Your task to perform on an android device: turn off picture-in-picture Image 0: 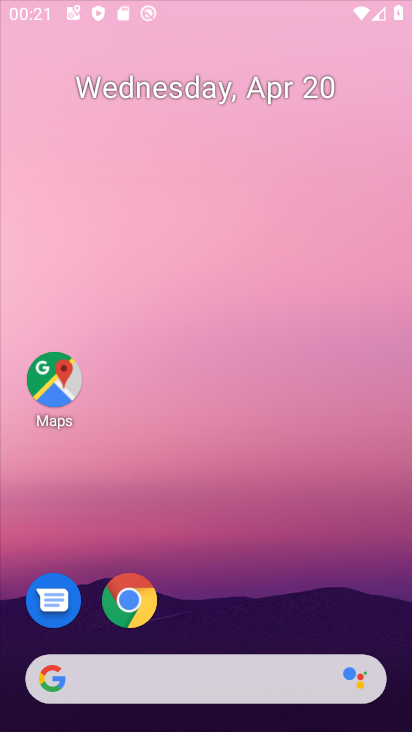
Step 0: click (222, 1)
Your task to perform on an android device: turn off picture-in-picture Image 1: 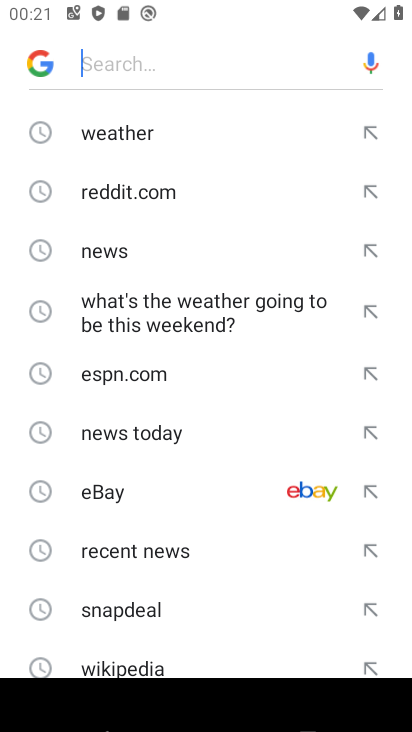
Step 1: press back button
Your task to perform on an android device: turn off picture-in-picture Image 2: 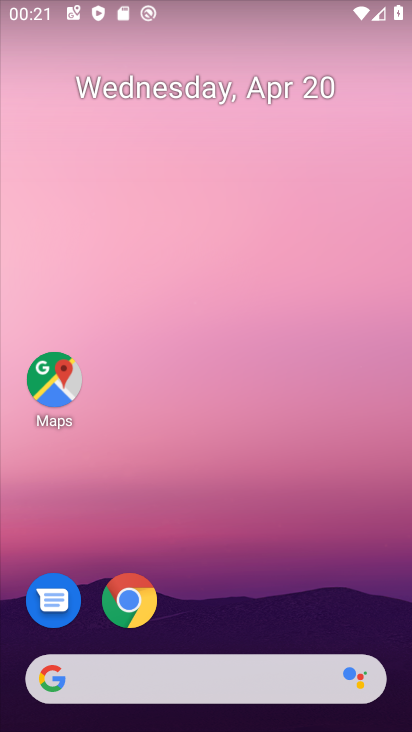
Step 2: drag from (260, 584) to (145, 8)
Your task to perform on an android device: turn off picture-in-picture Image 3: 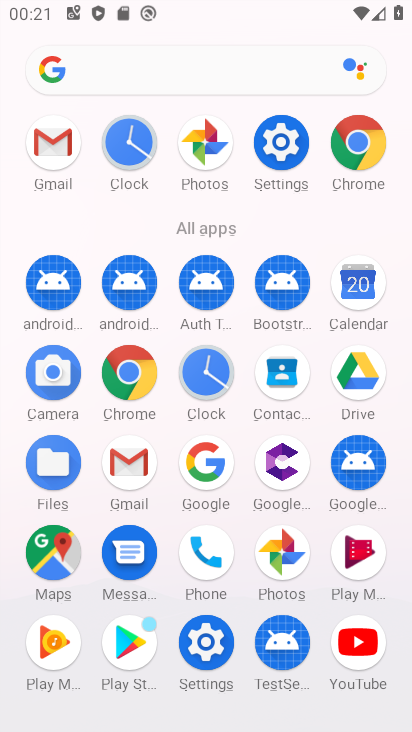
Step 3: click (204, 640)
Your task to perform on an android device: turn off picture-in-picture Image 4: 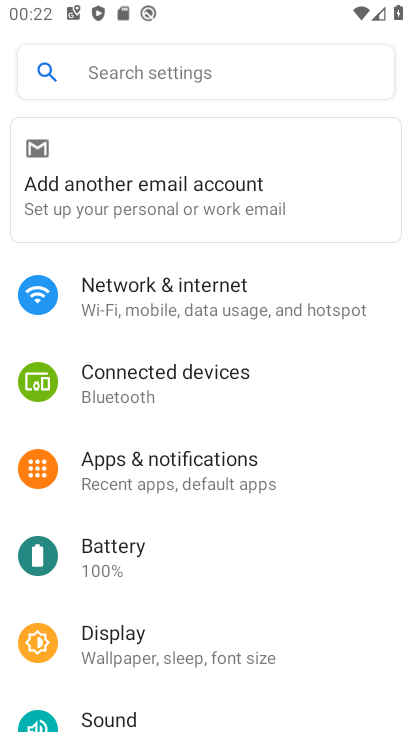
Step 4: drag from (294, 540) to (285, 203)
Your task to perform on an android device: turn off picture-in-picture Image 5: 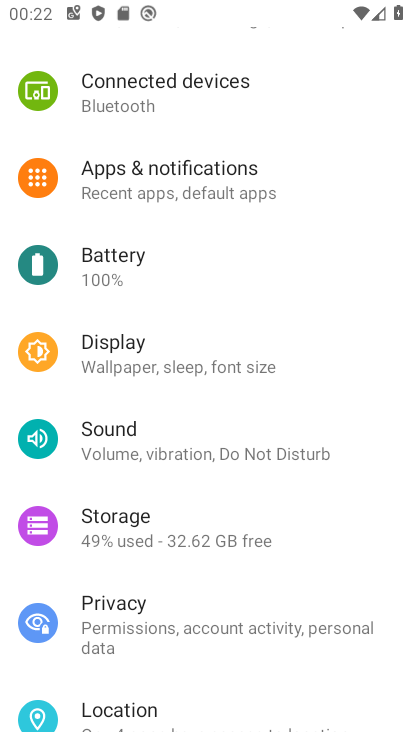
Step 5: drag from (334, 522) to (326, 108)
Your task to perform on an android device: turn off picture-in-picture Image 6: 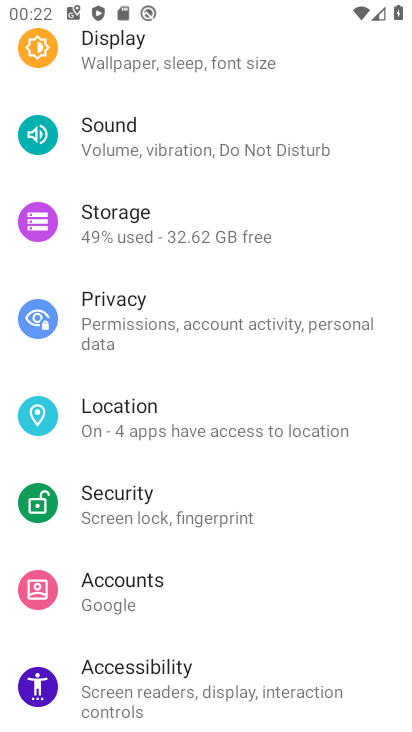
Step 6: drag from (349, 516) to (336, 84)
Your task to perform on an android device: turn off picture-in-picture Image 7: 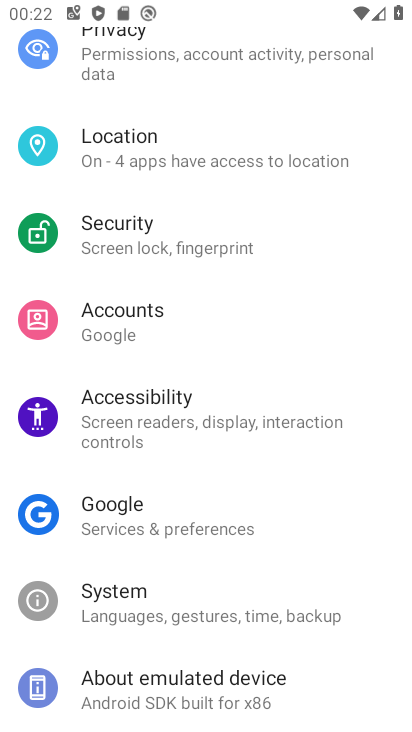
Step 7: drag from (340, 409) to (298, 100)
Your task to perform on an android device: turn off picture-in-picture Image 8: 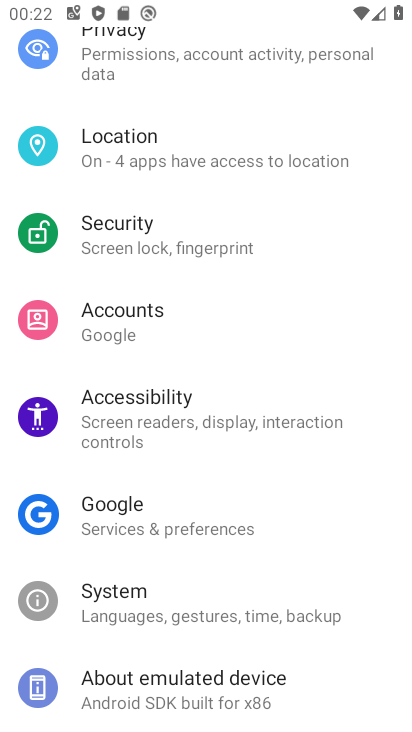
Step 8: drag from (260, 111) to (281, 573)
Your task to perform on an android device: turn off picture-in-picture Image 9: 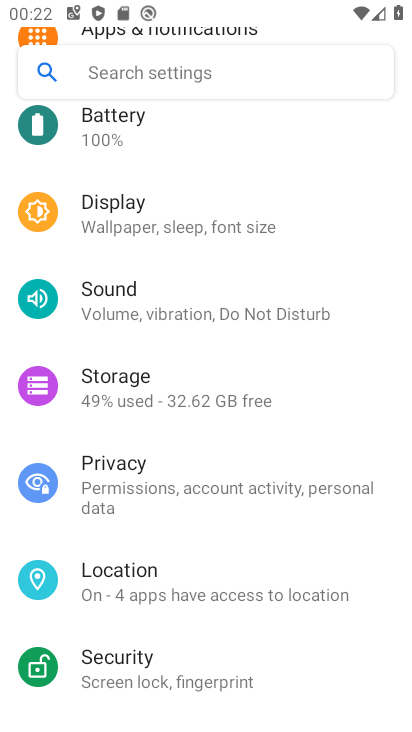
Step 9: drag from (258, 212) to (267, 549)
Your task to perform on an android device: turn off picture-in-picture Image 10: 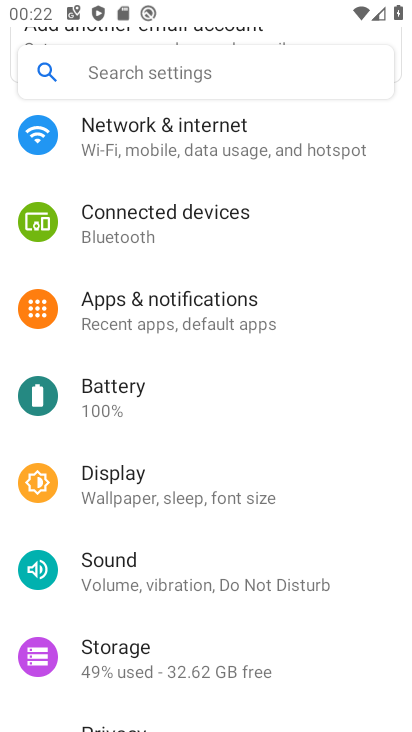
Step 10: click (194, 310)
Your task to perform on an android device: turn off picture-in-picture Image 11: 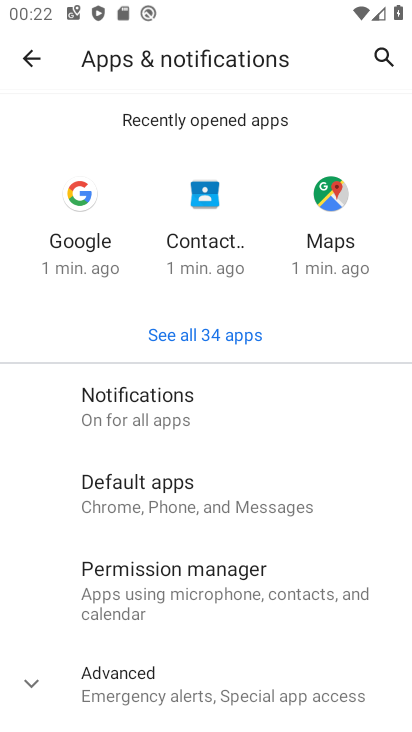
Step 11: click (216, 690)
Your task to perform on an android device: turn off picture-in-picture Image 12: 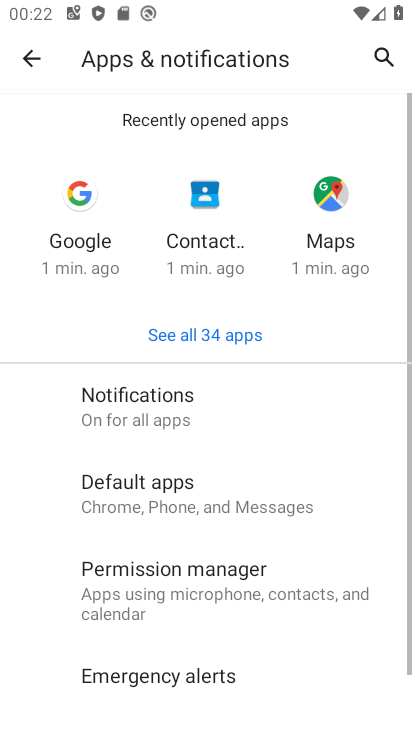
Step 12: drag from (250, 626) to (246, 200)
Your task to perform on an android device: turn off picture-in-picture Image 13: 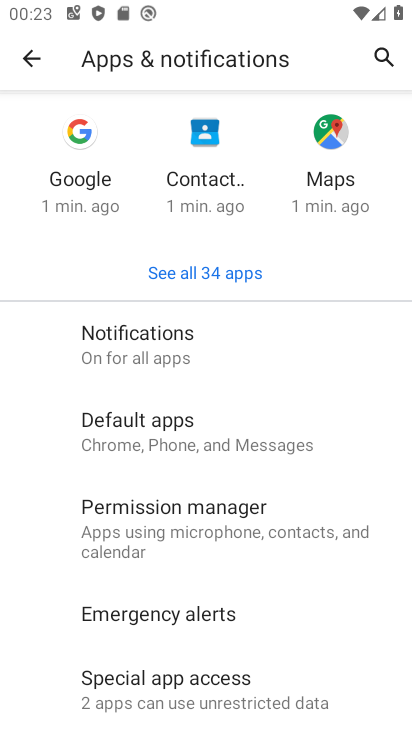
Step 13: drag from (239, 635) to (246, 315)
Your task to perform on an android device: turn off picture-in-picture Image 14: 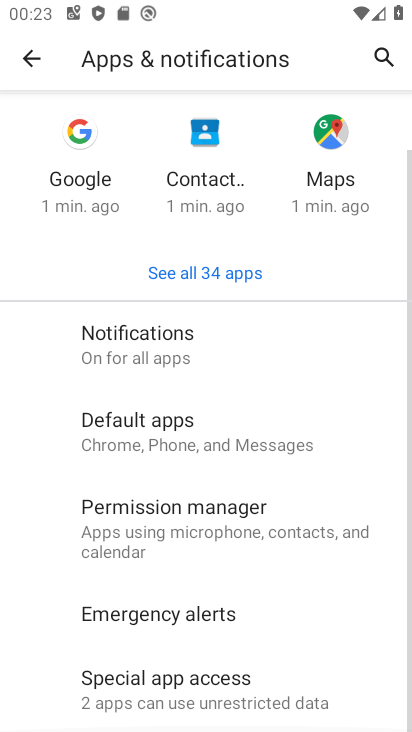
Step 14: click (222, 677)
Your task to perform on an android device: turn off picture-in-picture Image 15: 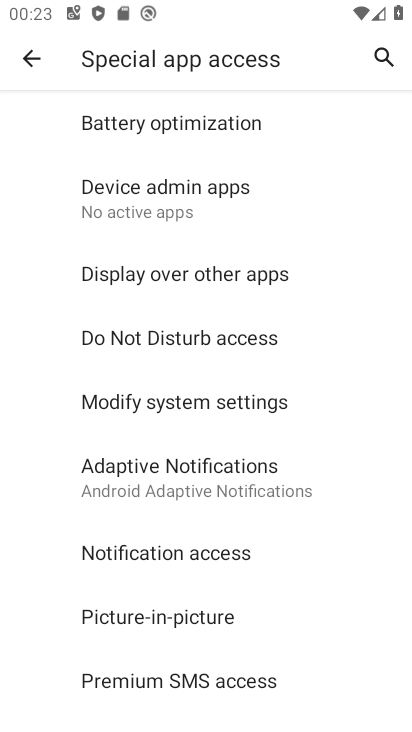
Step 15: click (238, 607)
Your task to perform on an android device: turn off picture-in-picture Image 16: 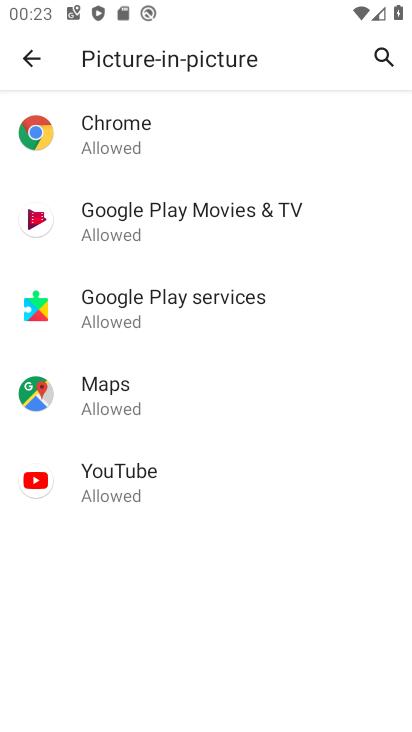
Step 16: click (165, 118)
Your task to perform on an android device: turn off picture-in-picture Image 17: 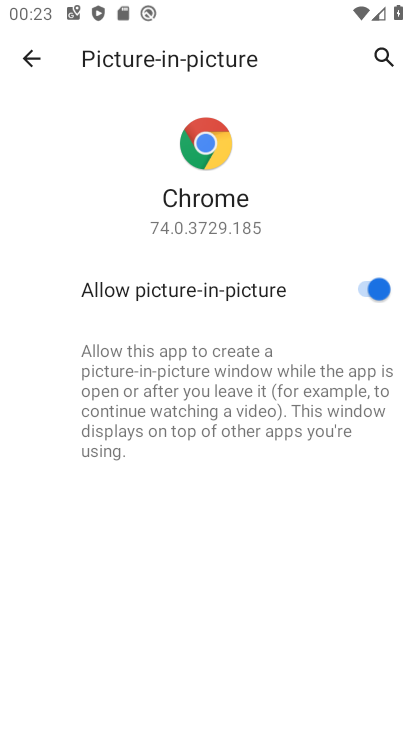
Step 17: click (361, 278)
Your task to perform on an android device: turn off picture-in-picture Image 18: 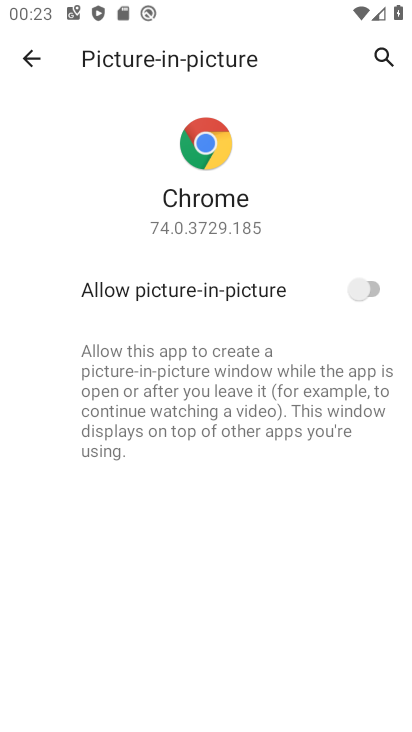
Step 18: click (22, 48)
Your task to perform on an android device: turn off picture-in-picture Image 19: 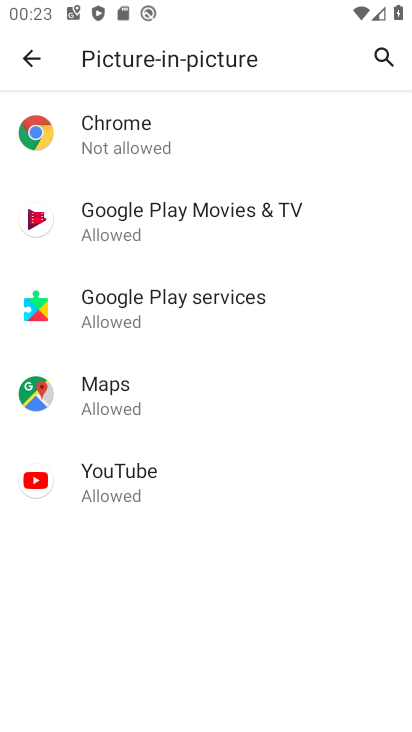
Step 19: click (180, 232)
Your task to perform on an android device: turn off picture-in-picture Image 20: 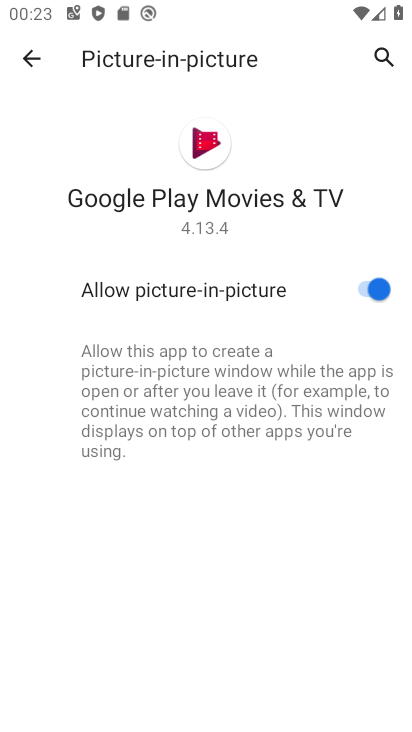
Step 20: click (371, 288)
Your task to perform on an android device: turn off picture-in-picture Image 21: 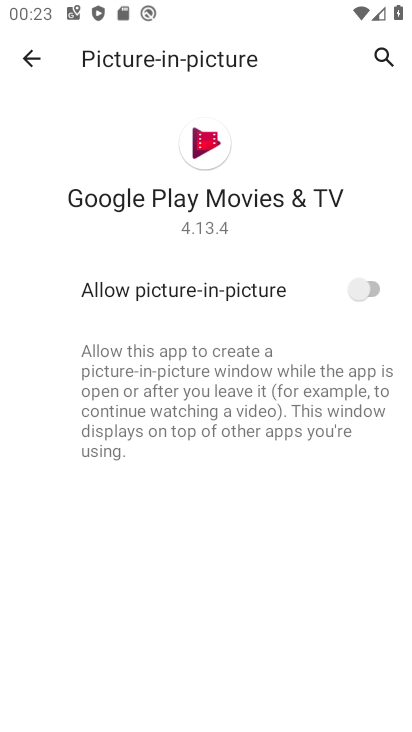
Step 21: click (36, 49)
Your task to perform on an android device: turn off picture-in-picture Image 22: 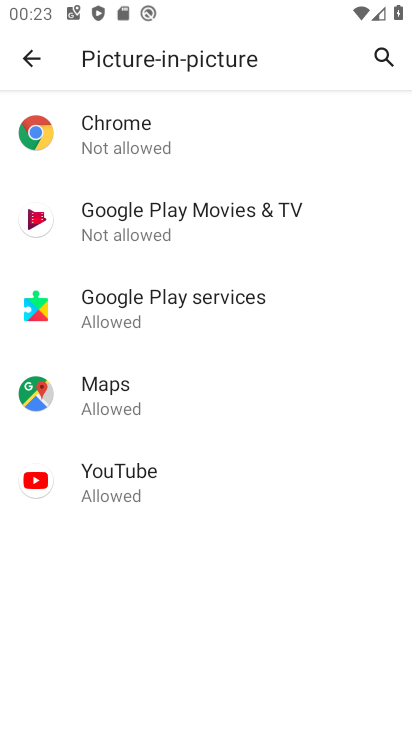
Step 22: click (177, 290)
Your task to perform on an android device: turn off picture-in-picture Image 23: 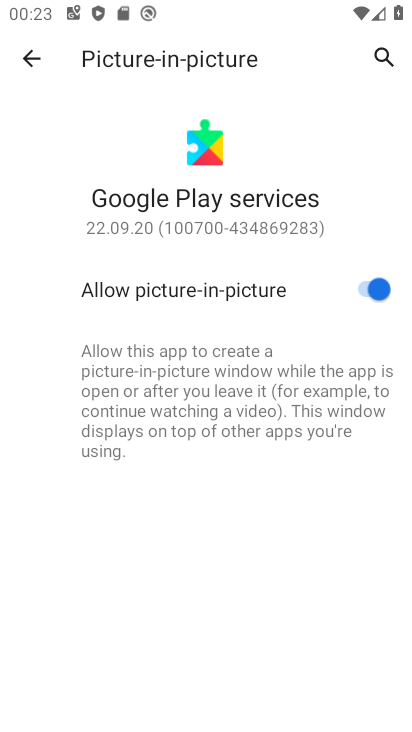
Step 23: click (364, 284)
Your task to perform on an android device: turn off picture-in-picture Image 24: 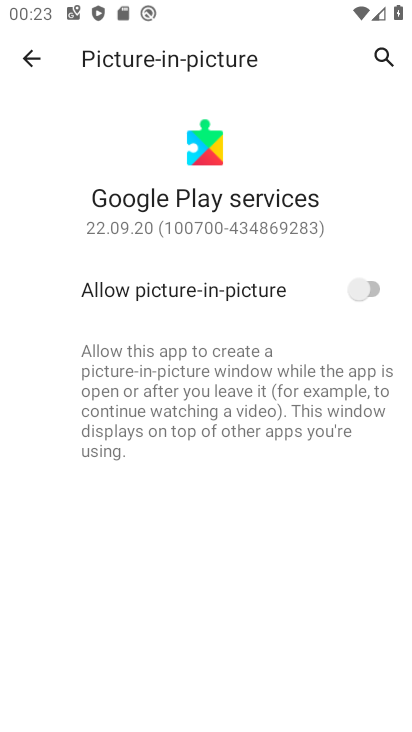
Step 24: click (43, 57)
Your task to perform on an android device: turn off picture-in-picture Image 25: 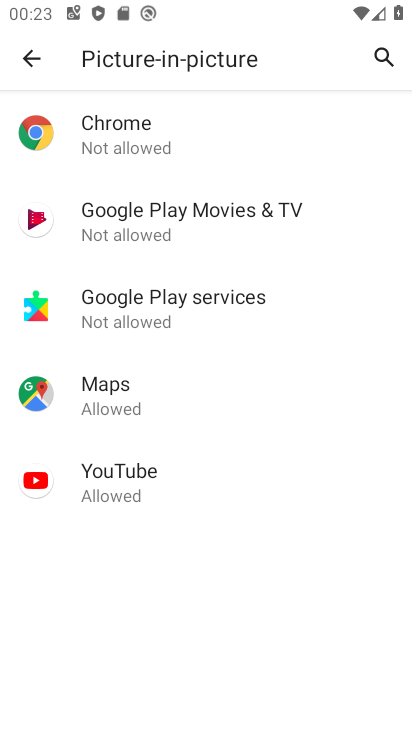
Step 25: click (132, 400)
Your task to perform on an android device: turn off picture-in-picture Image 26: 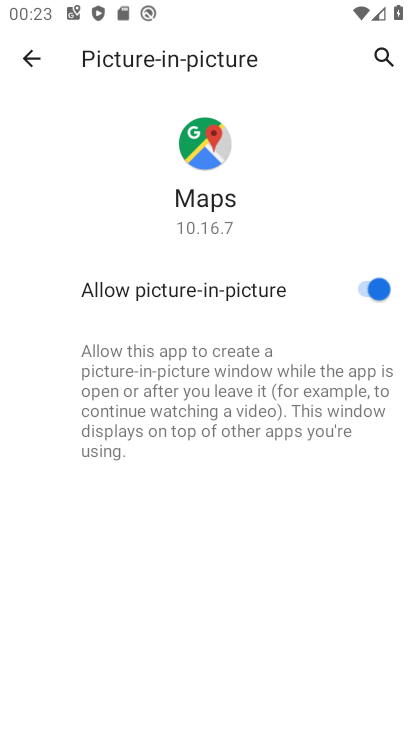
Step 26: click (375, 297)
Your task to perform on an android device: turn off picture-in-picture Image 27: 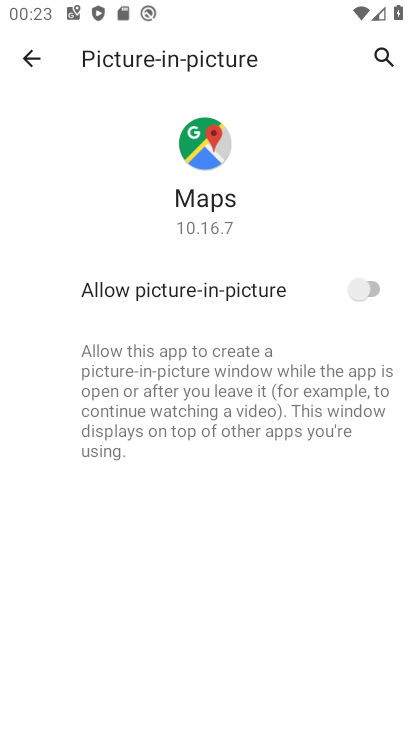
Step 27: click (37, 53)
Your task to perform on an android device: turn off picture-in-picture Image 28: 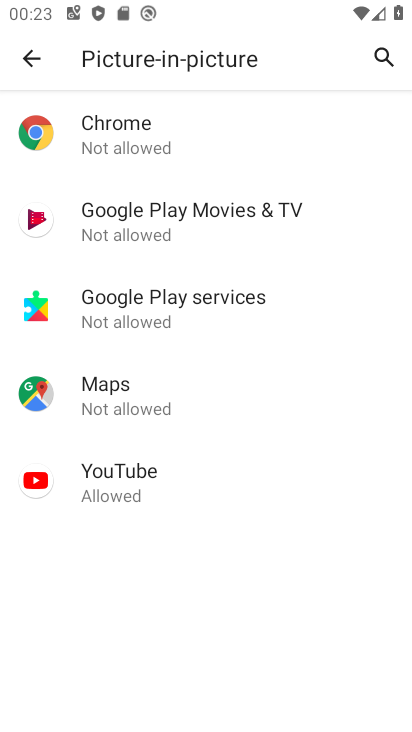
Step 28: click (133, 474)
Your task to perform on an android device: turn off picture-in-picture Image 29: 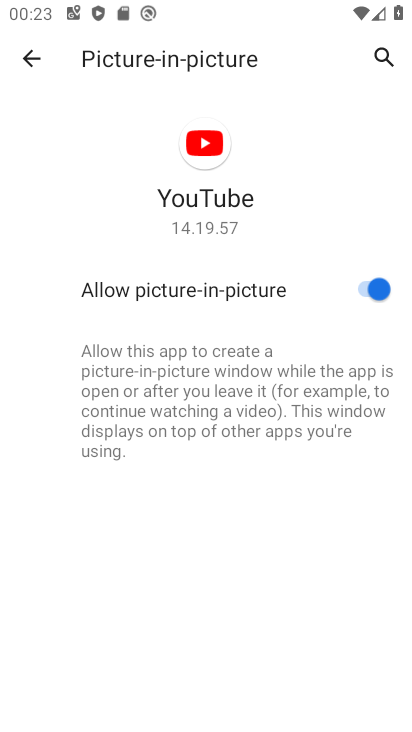
Step 29: click (379, 285)
Your task to perform on an android device: turn off picture-in-picture Image 30: 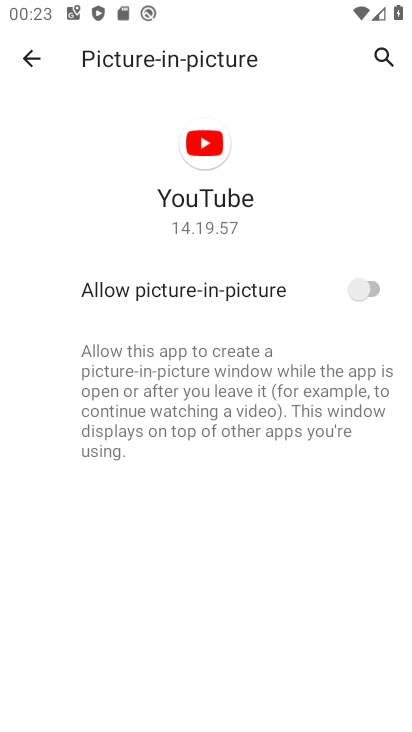
Step 30: click (48, 61)
Your task to perform on an android device: turn off picture-in-picture Image 31: 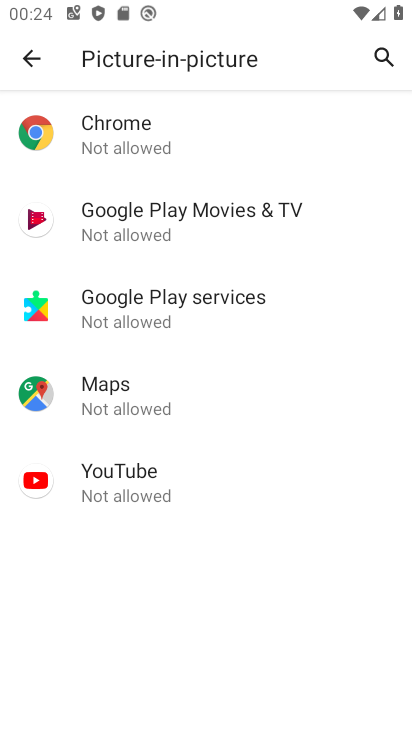
Step 31: task complete